Your task to perform on an android device: Open Yahoo.com Image 0: 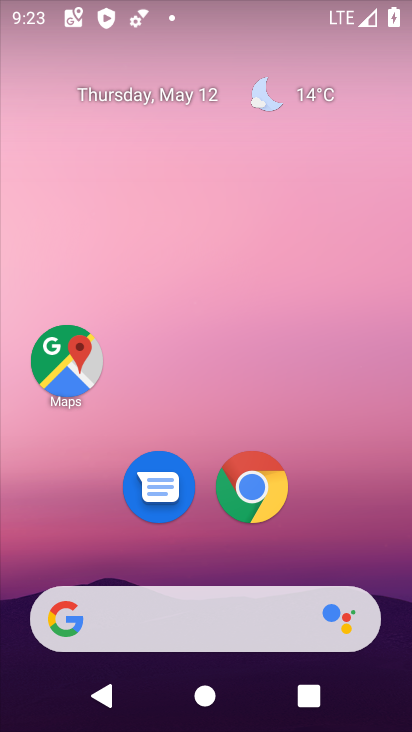
Step 0: click (241, 478)
Your task to perform on an android device: Open Yahoo.com Image 1: 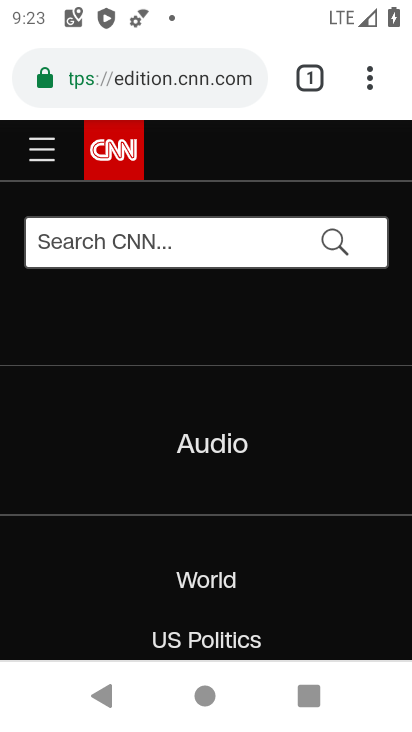
Step 1: click (323, 68)
Your task to perform on an android device: Open Yahoo.com Image 2: 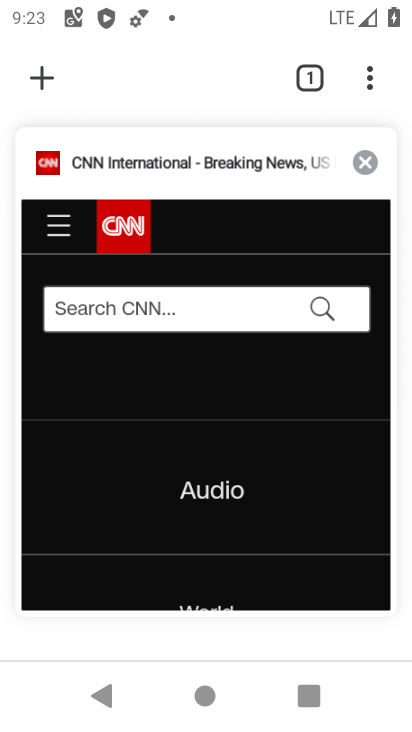
Step 2: click (353, 160)
Your task to perform on an android device: Open Yahoo.com Image 3: 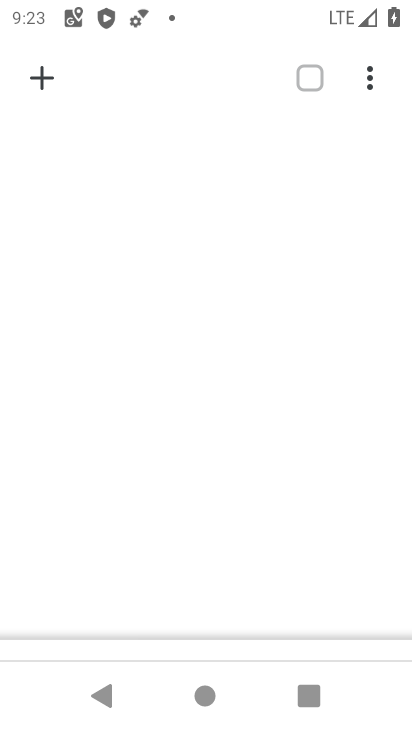
Step 3: click (42, 77)
Your task to perform on an android device: Open Yahoo.com Image 4: 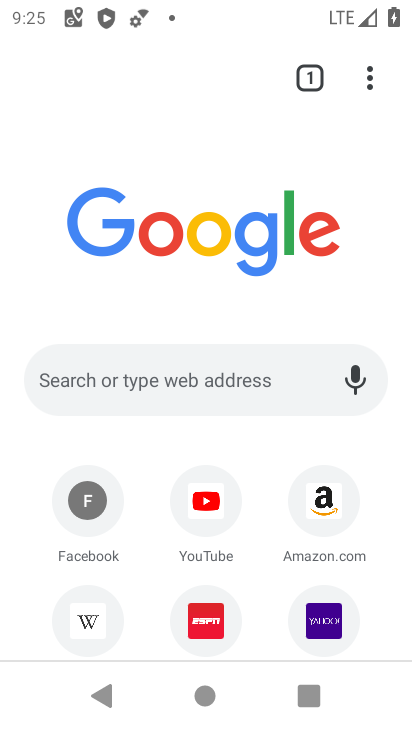
Step 4: click (340, 613)
Your task to perform on an android device: Open Yahoo.com Image 5: 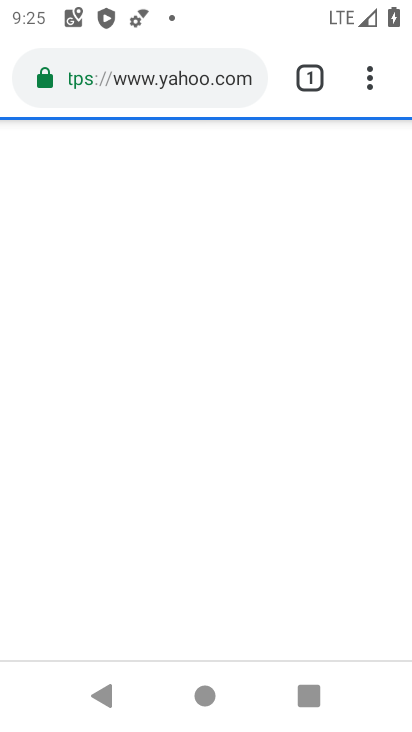
Step 5: task complete